Your task to perform on an android device: Open Yahoo.com Image 0: 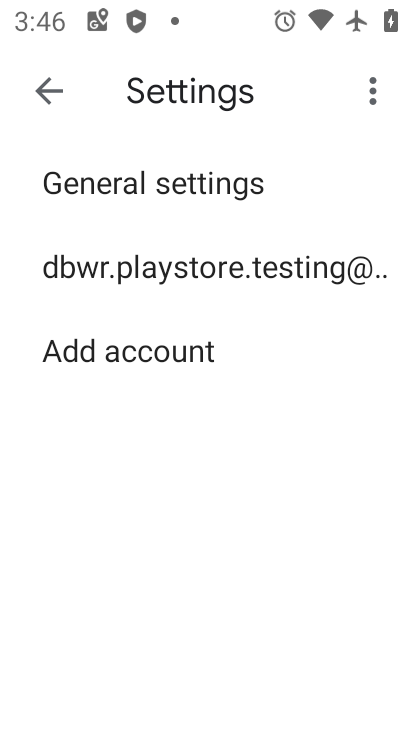
Step 0: press home button
Your task to perform on an android device: Open Yahoo.com Image 1: 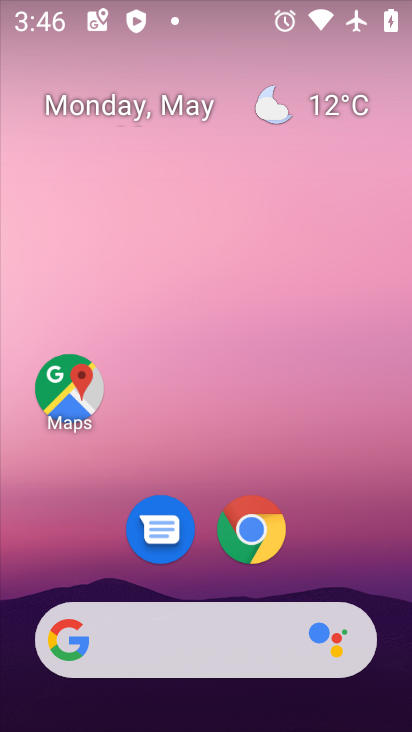
Step 1: click (251, 540)
Your task to perform on an android device: Open Yahoo.com Image 2: 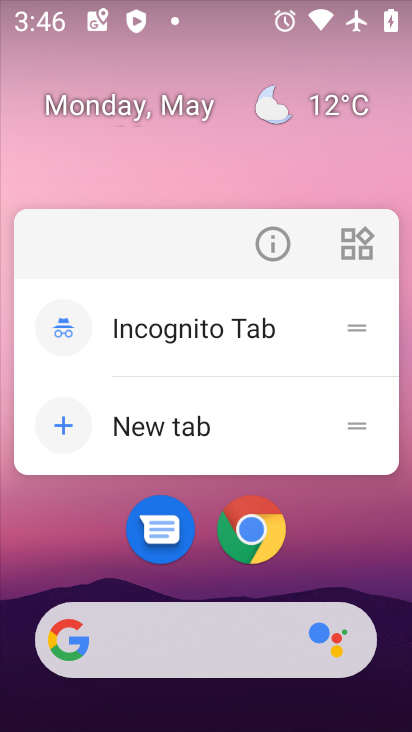
Step 2: click (250, 540)
Your task to perform on an android device: Open Yahoo.com Image 3: 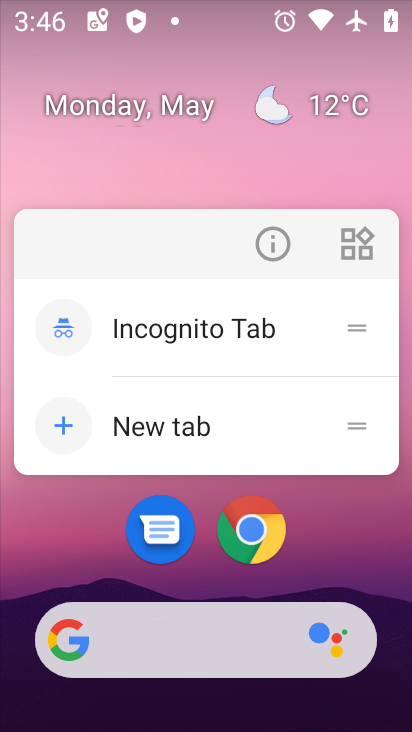
Step 3: click (250, 528)
Your task to perform on an android device: Open Yahoo.com Image 4: 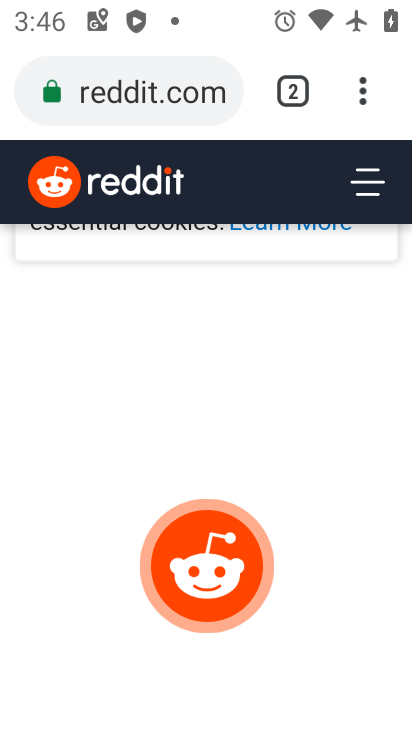
Step 4: click (121, 101)
Your task to perform on an android device: Open Yahoo.com Image 5: 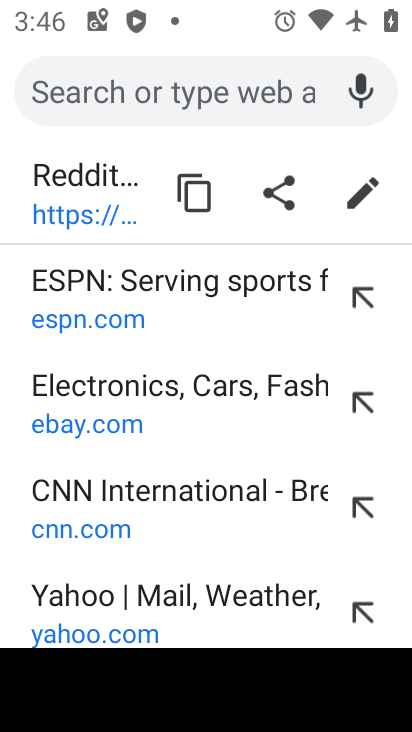
Step 5: type "yahoo.com"
Your task to perform on an android device: Open Yahoo.com Image 6: 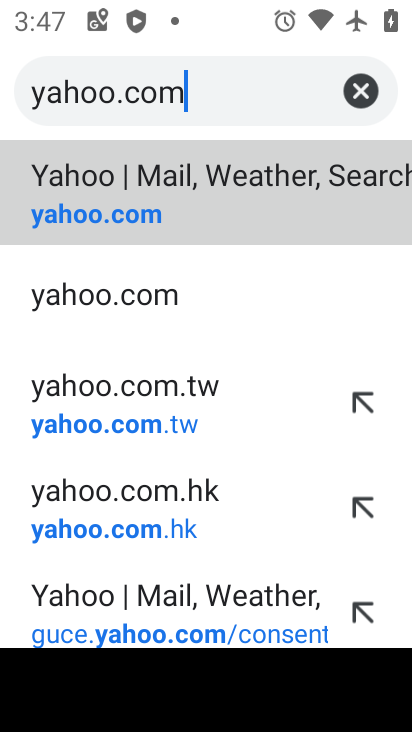
Step 6: click (61, 209)
Your task to perform on an android device: Open Yahoo.com Image 7: 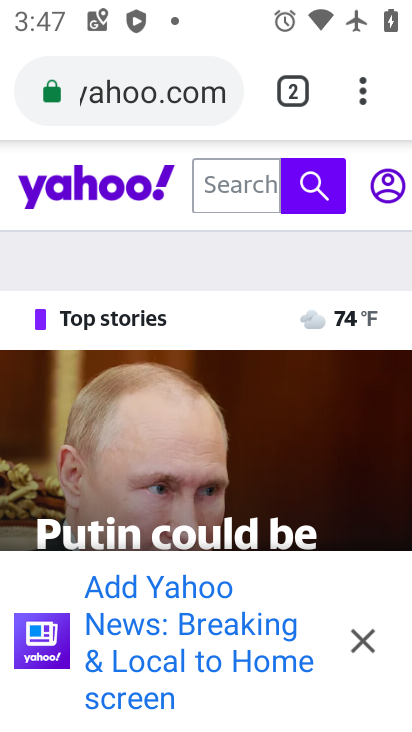
Step 7: task complete